Your task to perform on an android device: Clear the shopping cart on costco. Search for logitech g502 on costco, select the first entry, and add it to the cart. Image 0: 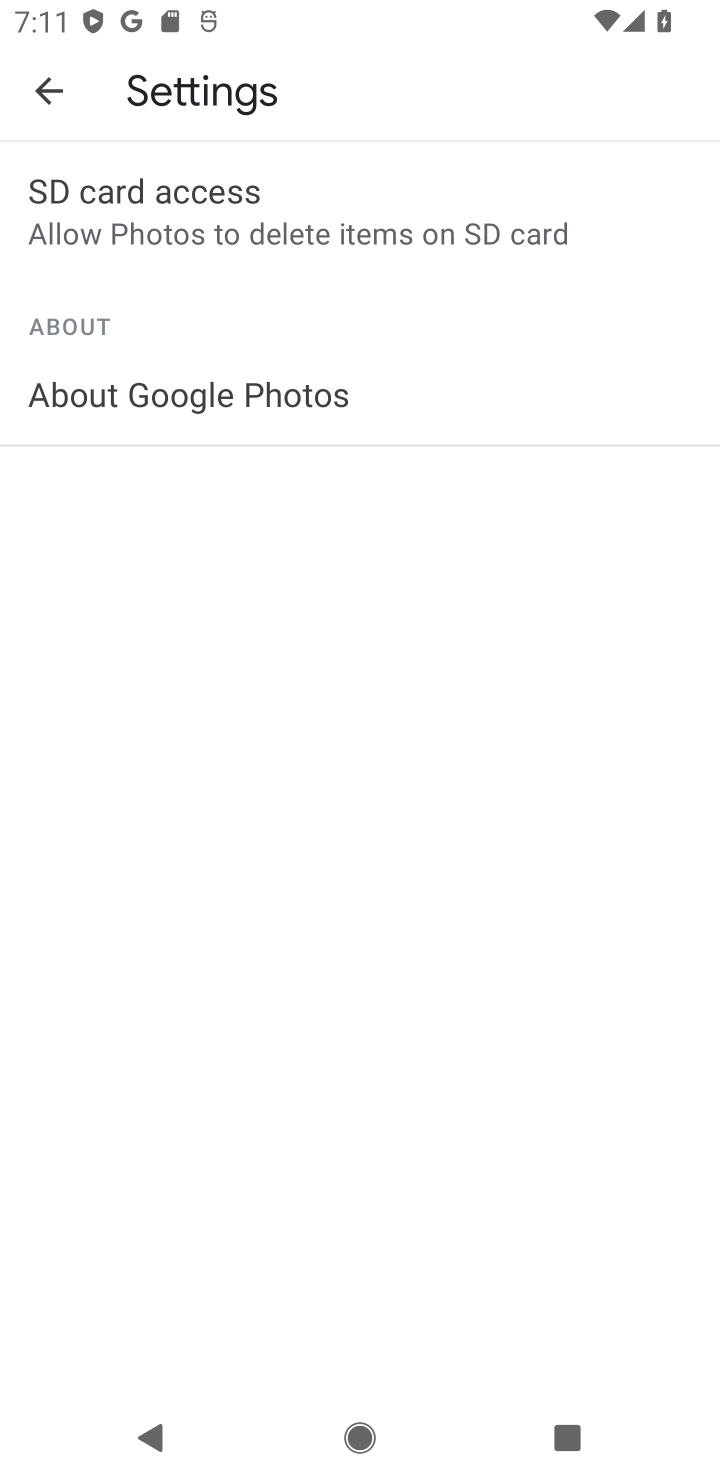
Step 0: press home button
Your task to perform on an android device: Clear the shopping cart on costco. Search for logitech g502 on costco, select the first entry, and add it to the cart. Image 1: 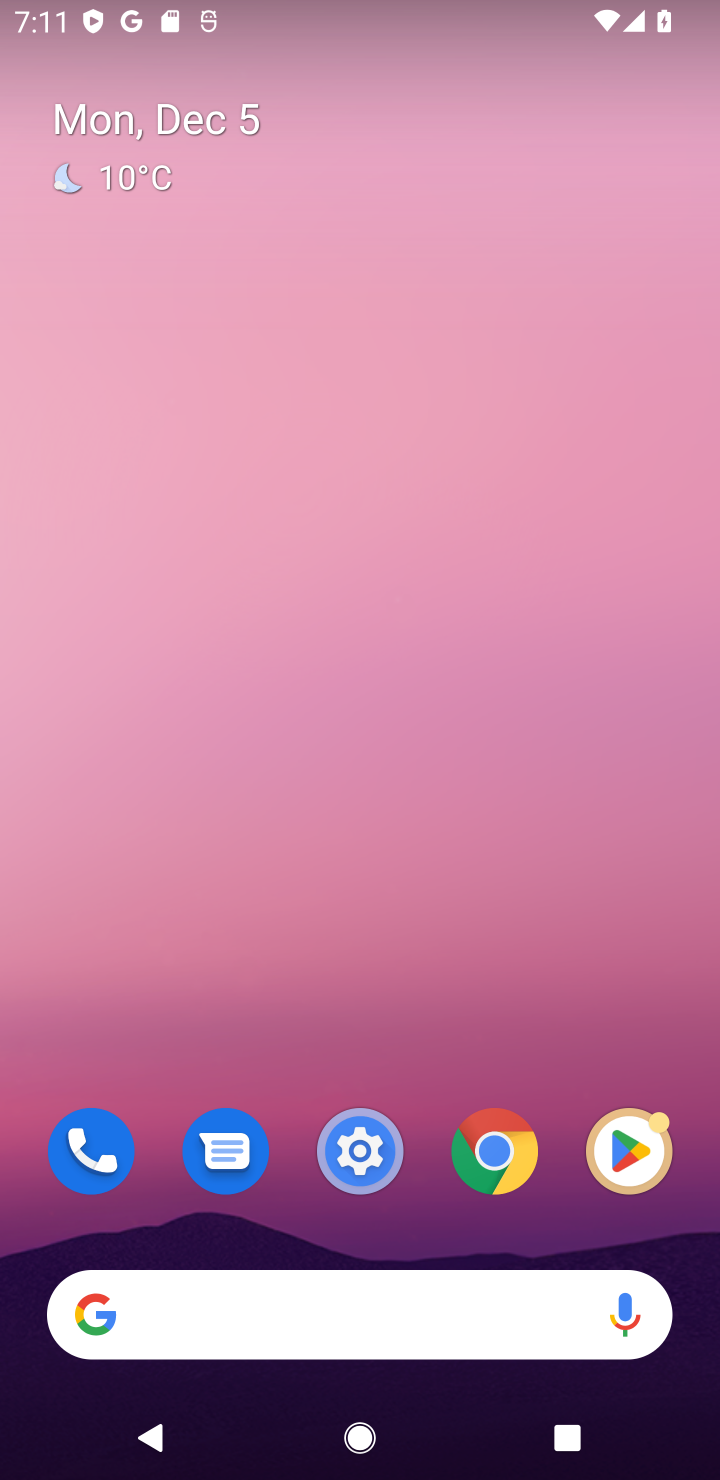
Step 1: click (342, 1341)
Your task to perform on an android device: Clear the shopping cart on costco. Search for logitech g502 on costco, select the first entry, and add it to the cart. Image 2: 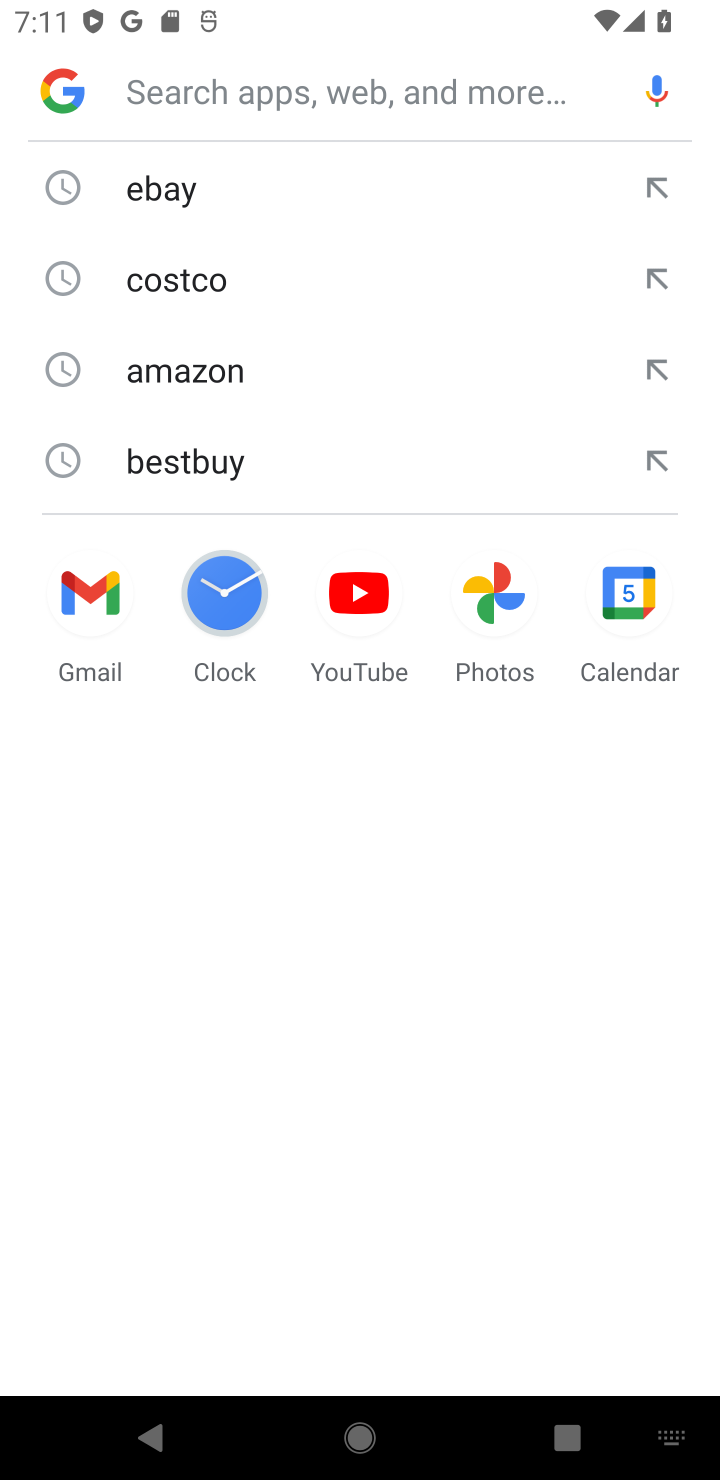
Step 2: click (289, 291)
Your task to perform on an android device: Clear the shopping cart on costco. Search for logitech g502 on costco, select the first entry, and add it to the cart. Image 3: 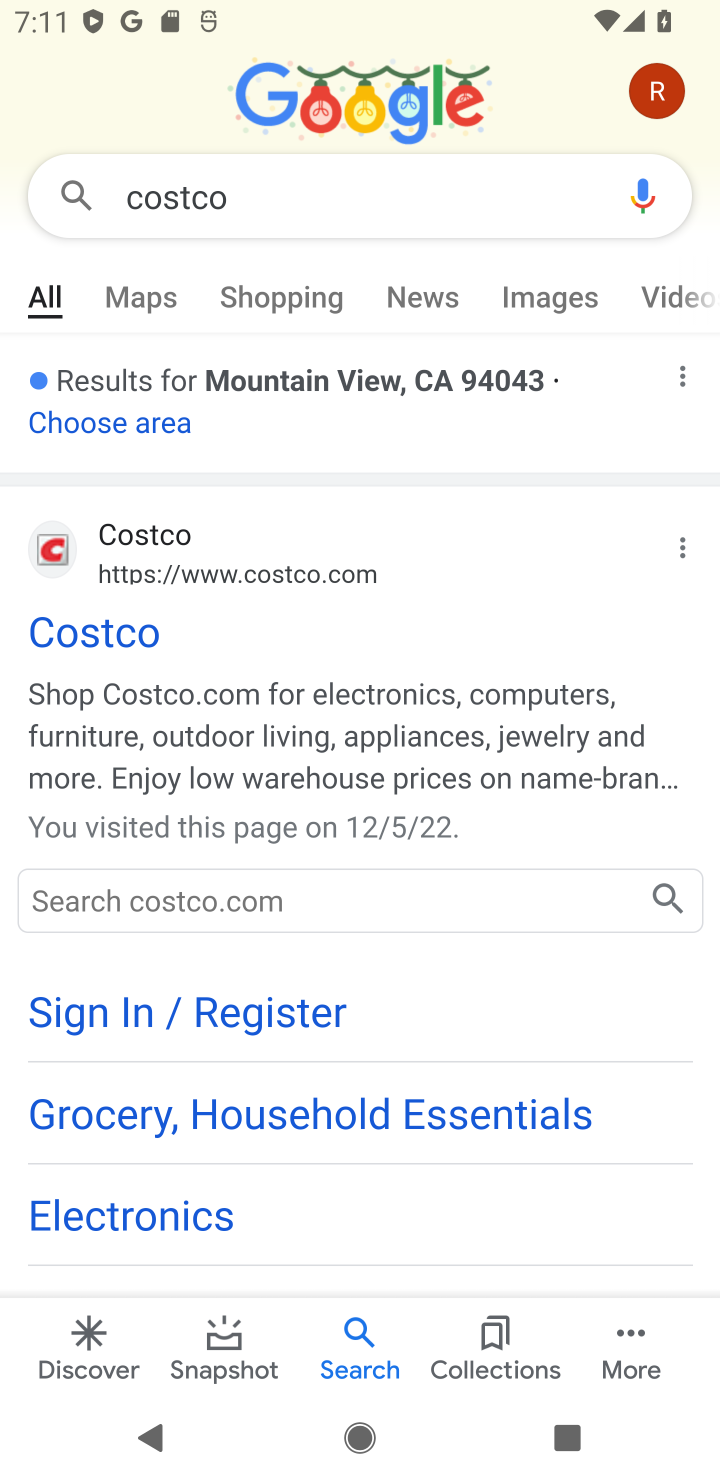
Step 3: click (96, 625)
Your task to perform on an android device: Clear the shopping cart on costco. Search for logitech g502 on costco, select the first entry, and add it to the cart. Image 4: 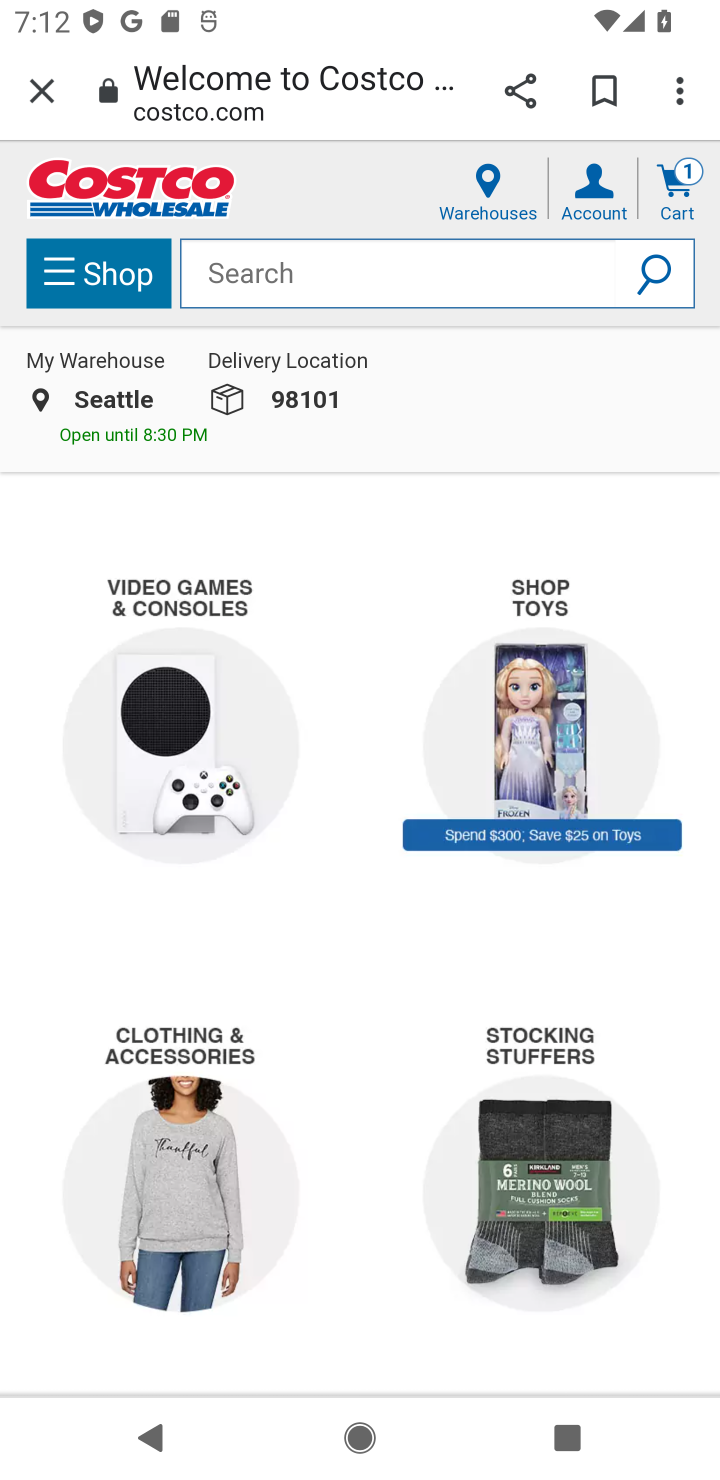
Step 4: click (211, 250)
Your task to perform on an android device: Clear the shopping cart on costco. Search for logitech g502 on costco, select the first entry, and add it to the cart. Image 5: 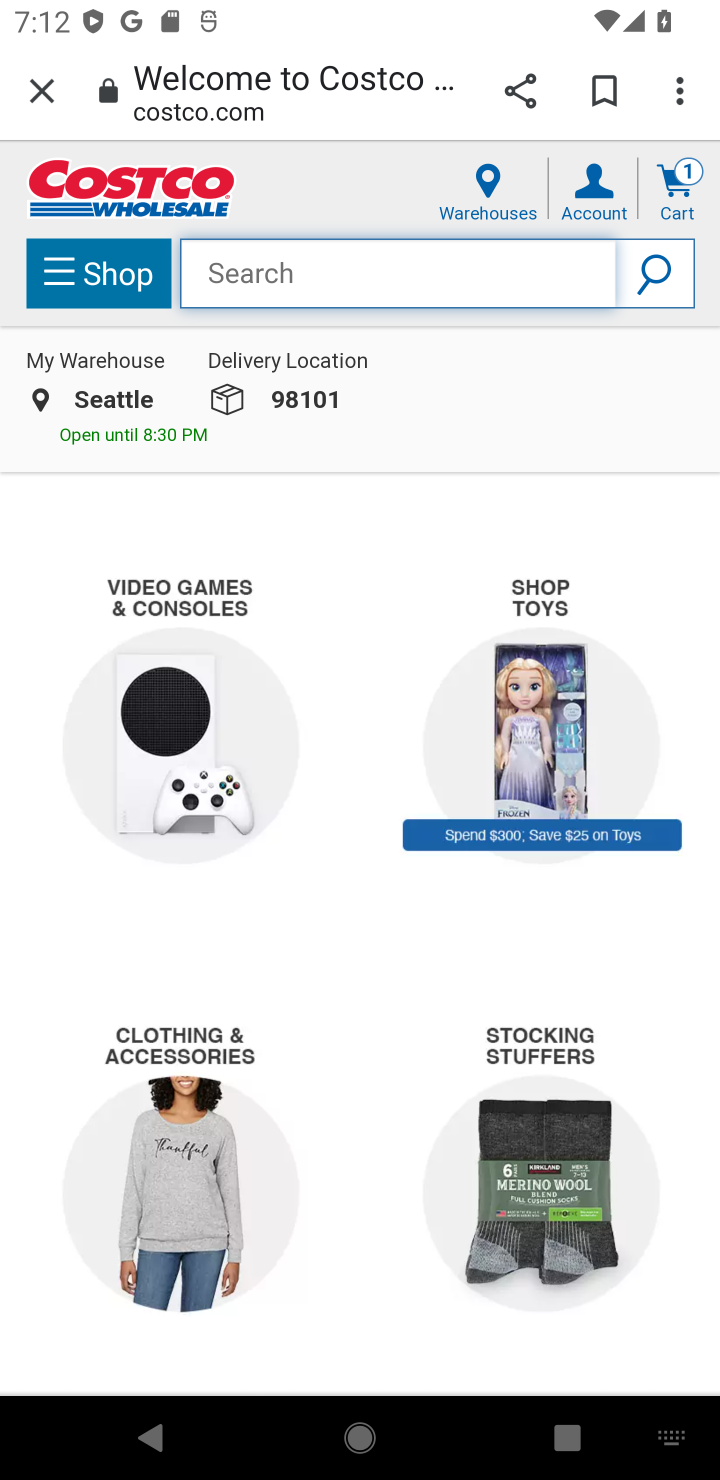
Step 5: type "logitech g502"
Your task to perform on an android device: Clear the shopping cart on costco. Search for logitech g502 on costco, select the first entry, and add it to the cart. Image 6: 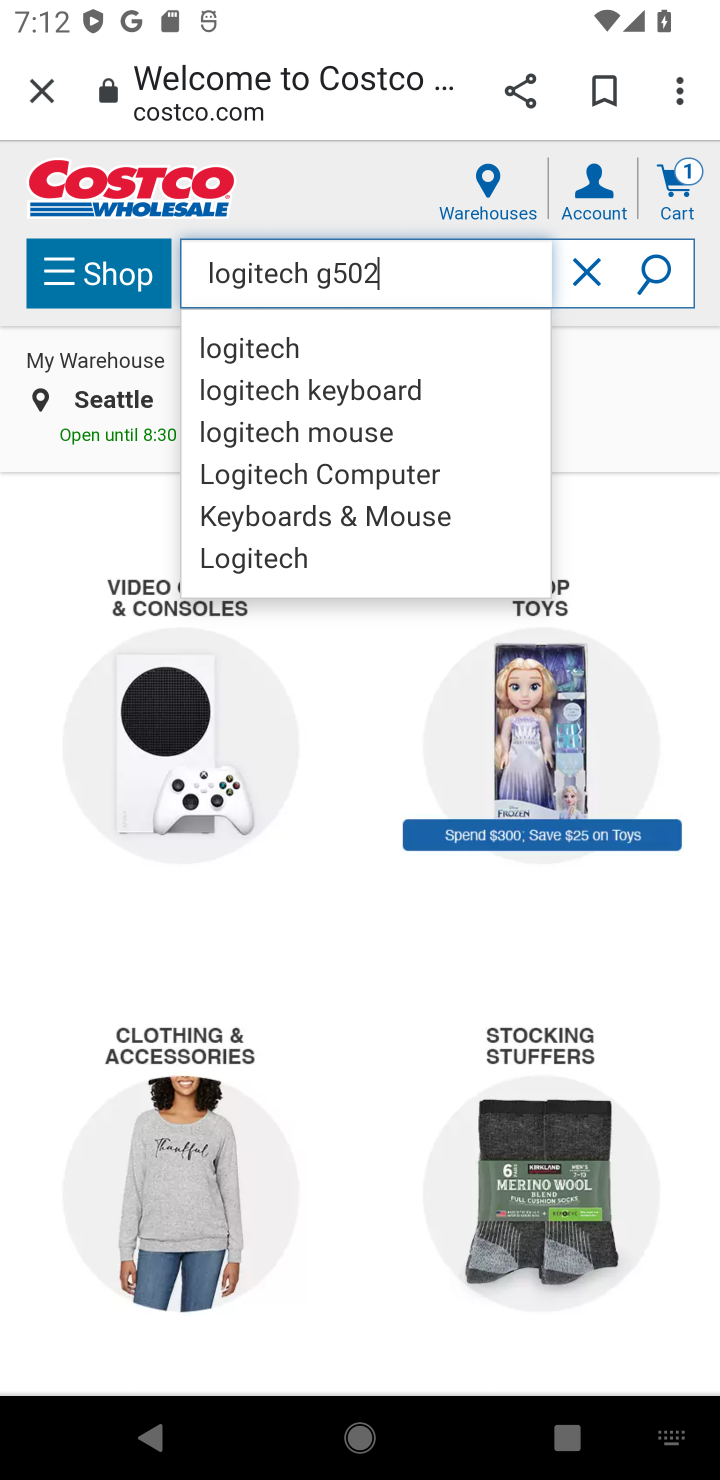
Step 6: click (657, 279)
Your task to perform on an android device: Clear the shopping cart on costco. Search for logitech g502 on costco, select the first entry, and add it to the cart. Image 7: 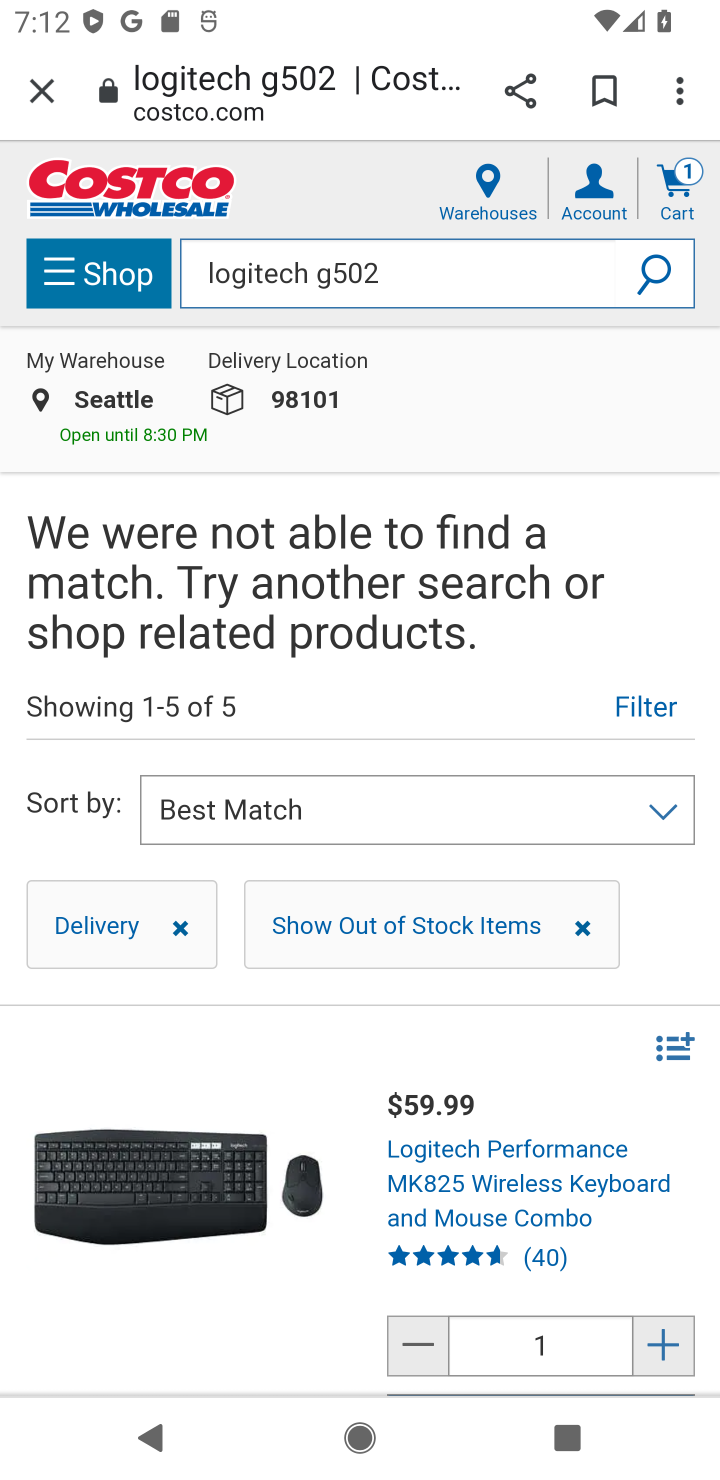
Step 7: drag from (226, 1272) to (111, 613)
Your task to perform on an android device: Clear the shopping cart on costco. Search for logitech g502 on costco, select the first entry, and add it to the cart. Image 8: 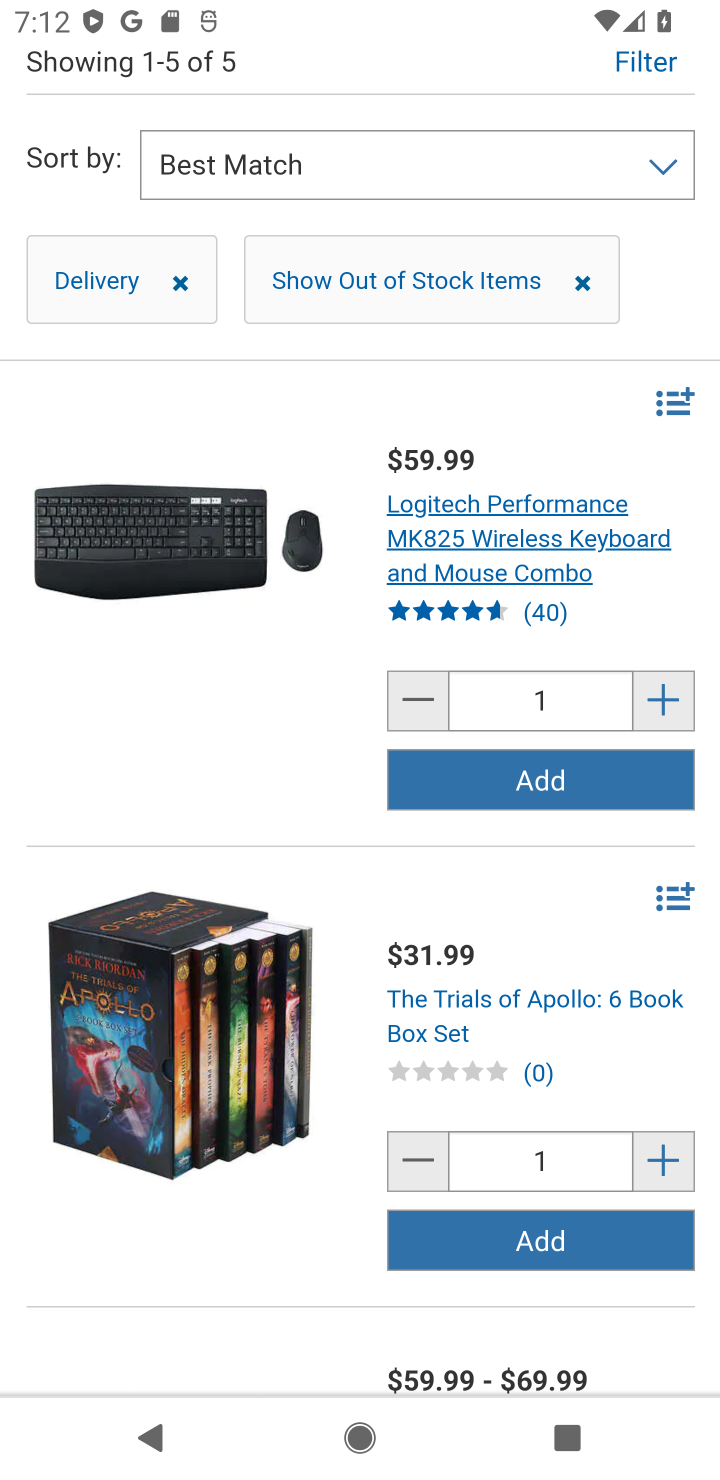
Step 8: click (479, 796)
Your task to perform on an android device: Clear the shopping cart on costco. Search for logitech g502 on costco, select the first entry, and add it to the cart. Image 9: 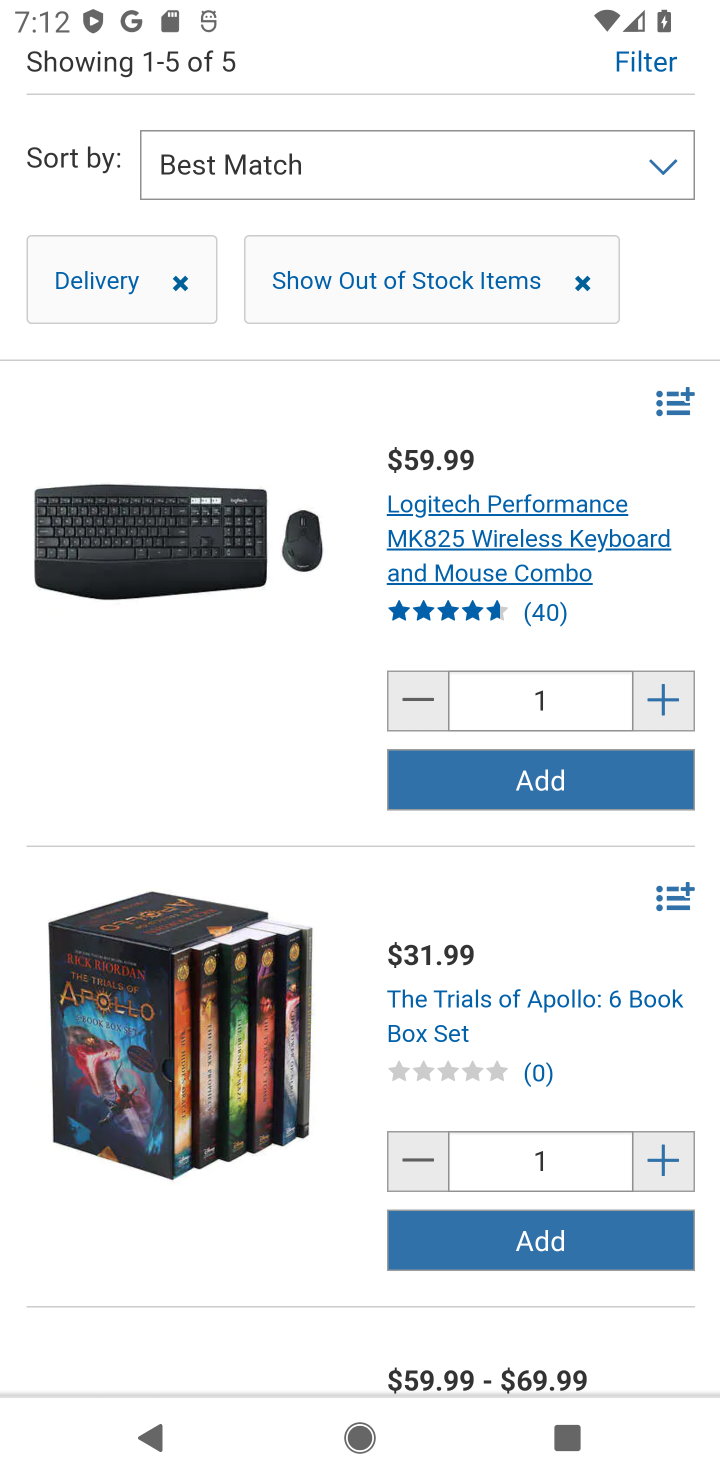
Step 9: task complete